Your task to perform on an android device: Go to Reddit.com Image 0: 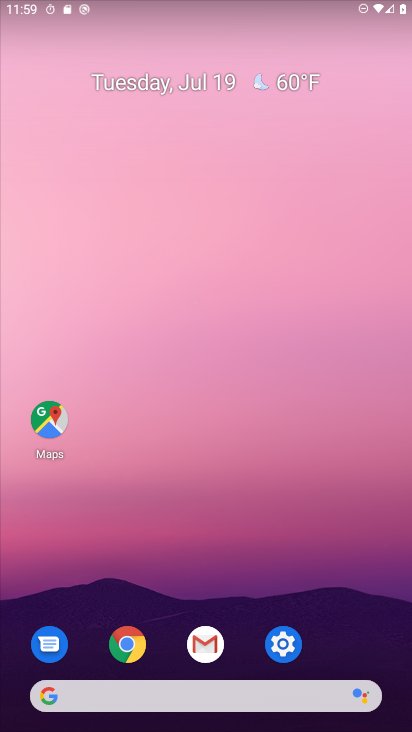
Step 0: click (122, 653)
Your task to perform on an android device: Go to Reddit.com Image 1: 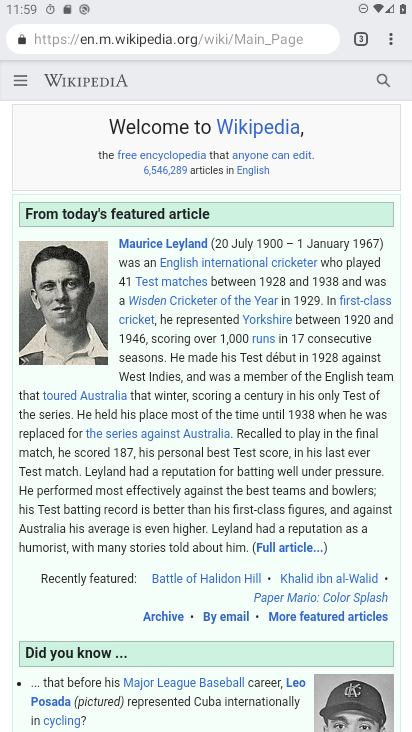
Step 1: click (198, 39)
Your task to perform on an android device: Go to Reddit.com Image 2: 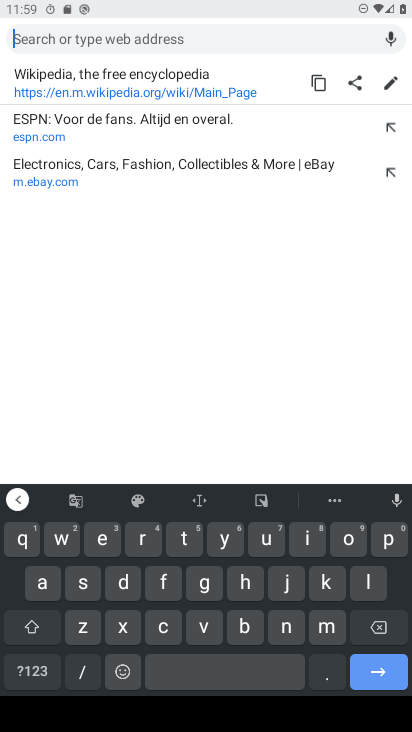
Step 2: click (144, 546)
Your task to perform on an android device: Go to Reddit.com Image 3: 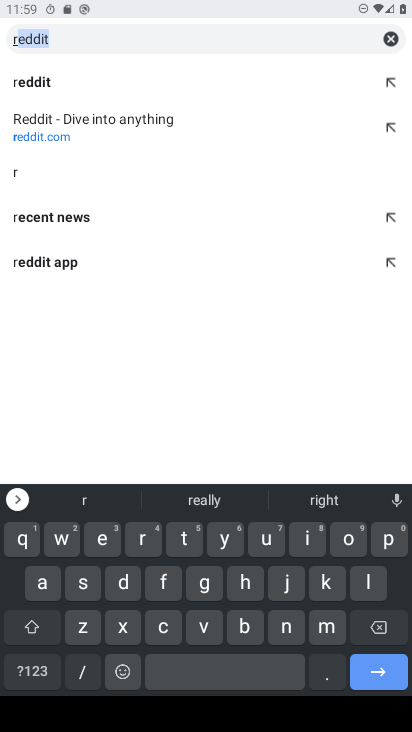
Step 3: click (59, 77)
Your task to perform on an android device: Go to Reddit.com Image 4: 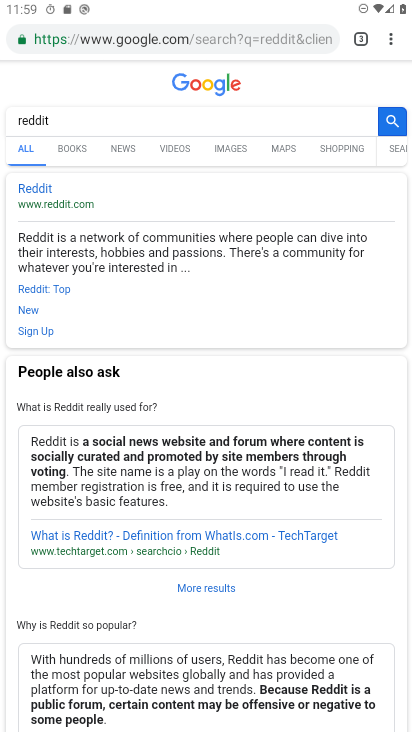
Step 4: click (33, 189)
Your task to perform on an android device: Go to Reddit.com Image 5: 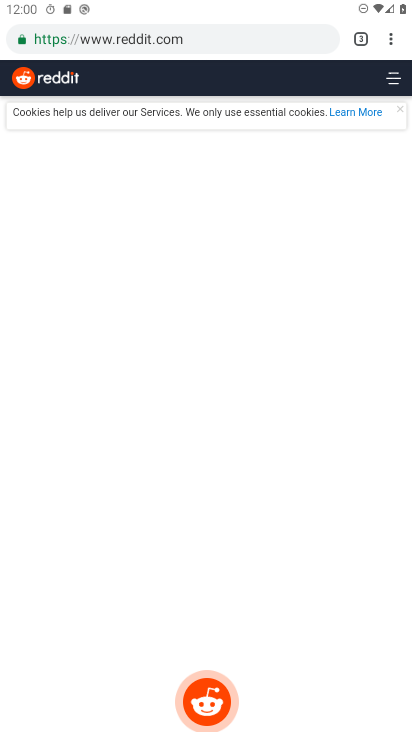
Step 5: task complete